Your task to perform on an android device: turn smart compose on in the gmail app Image 0: 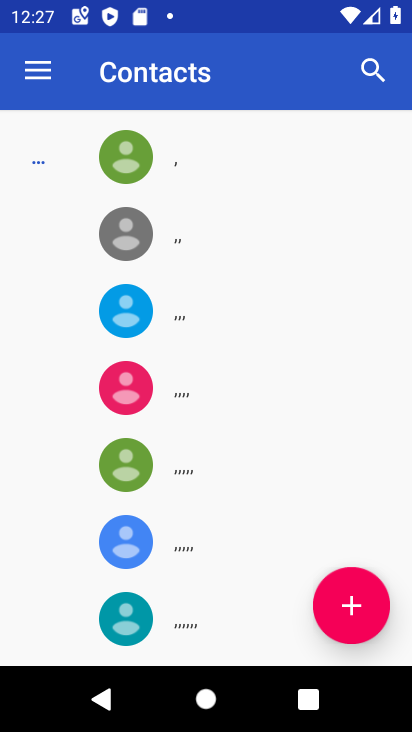
Step 0: press home button
Your task to perform on an android device: turn smart compose on in the gmail app Image 1: 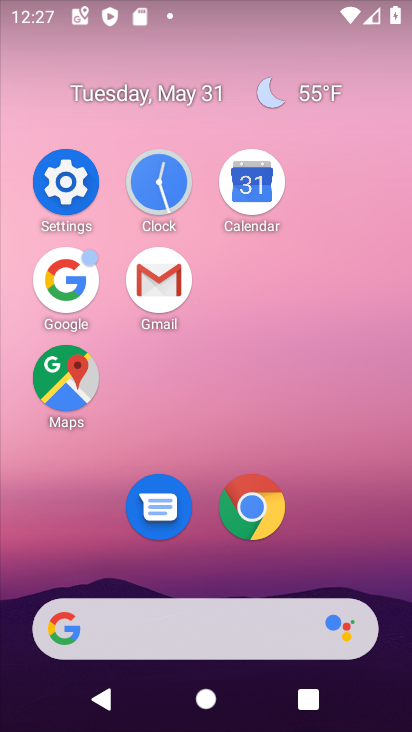
Step 1: click (146, 283)
Your task to perform on an android device: turn smart compose on in the gmail app Image 2: 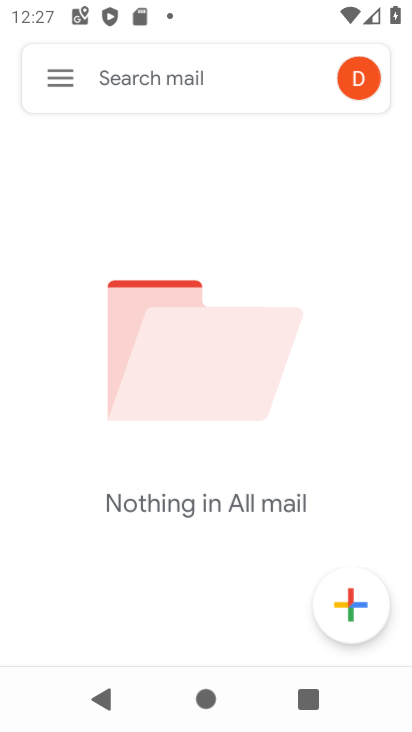
Step 2: click (71, 102)
Your task to perform on an android device: turn smart compose on in the gmail app Image 3: 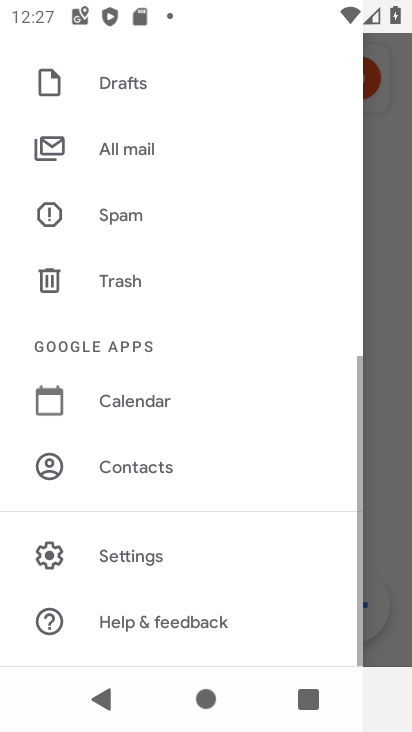
Step 3: click (101, 566)
Your task to perform on an android device: turn smart compose on in the gmail app Image 4: 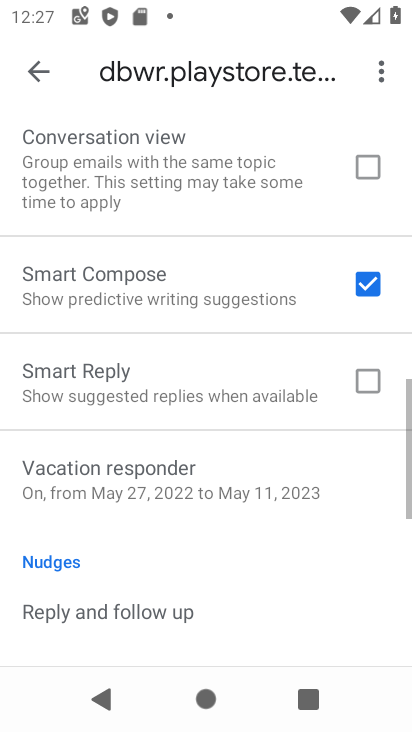
Step 4: task complete